Your task to perform on an android device: Open a new Chrome private window Image 0: 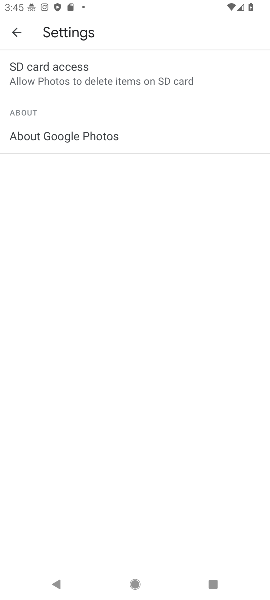
Step 0: press home button
Your task to perform on an android device: Open a new Chrome private window Image 1: 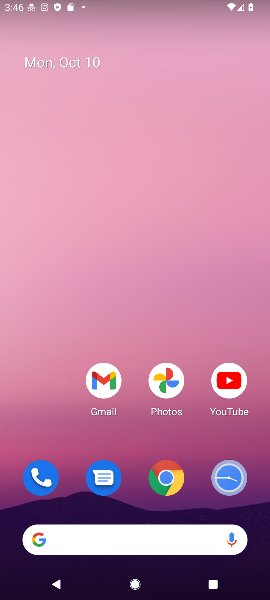
Step 1: click (166, 484)
Your task to perform on an android device: Open a new Chrome private window Image 2: 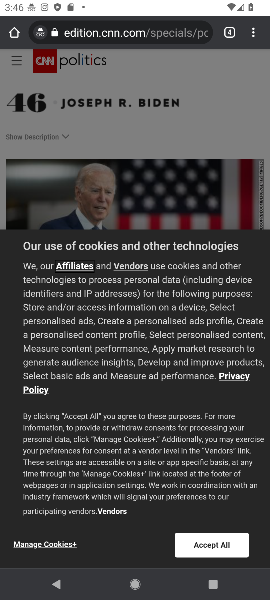
Step 2: click (258, 26)
Your task to perform on an android device: Open a new Chrome private window Image 3: 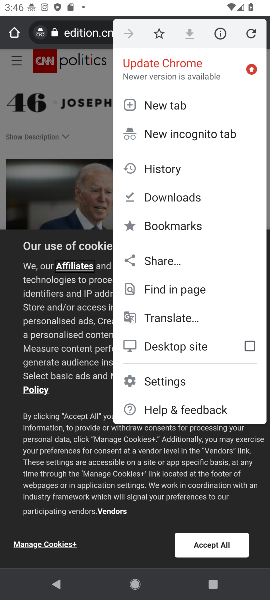
Step 3: click (195, 135)
Your task to perform on an android device: Open a new Chrome private window Image 4: 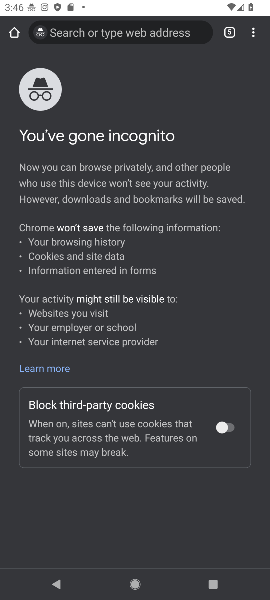
Step 4: task complete